Your task to perform on an android device: Show me popular games on the Play Store Image 0: 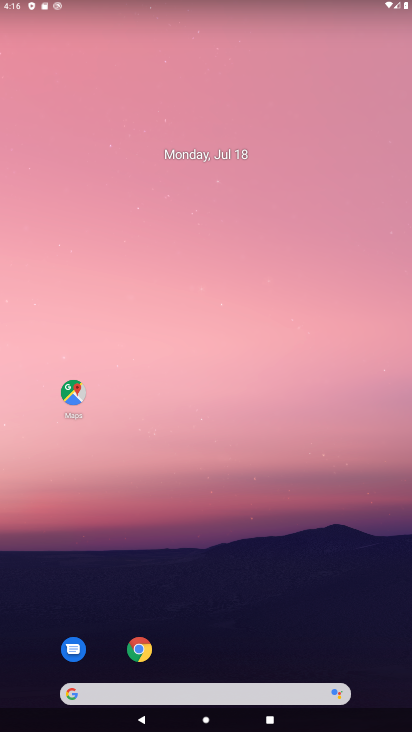
Step 0: drag from (220, 627) to (220, 62)
Your task to perform on an android device: Show me popular games on the Play Store Image 1: 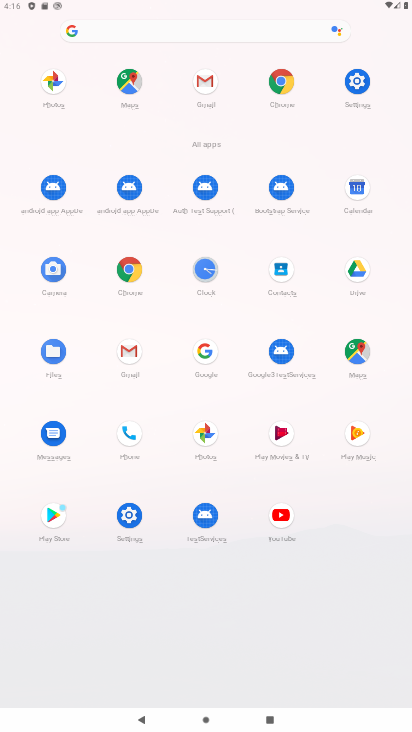
Step 1: click (54, 515)
Your task to perform on an android device: Show me popular games on the Play Store Image 2: 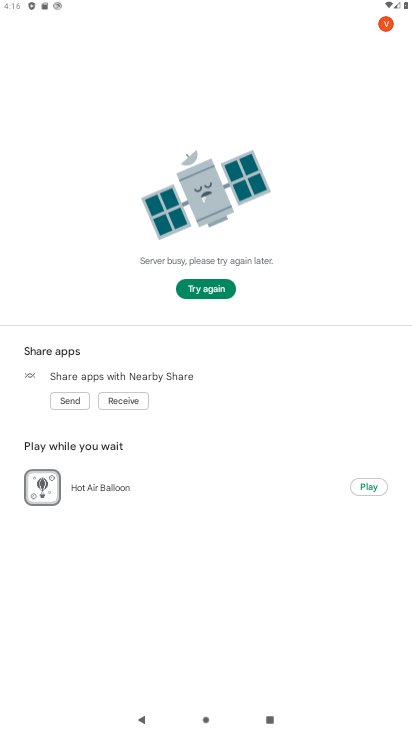
Step 2: click (203, 279)
Your task to perform on an android device: Show me popular games on the Play Store Image 3: 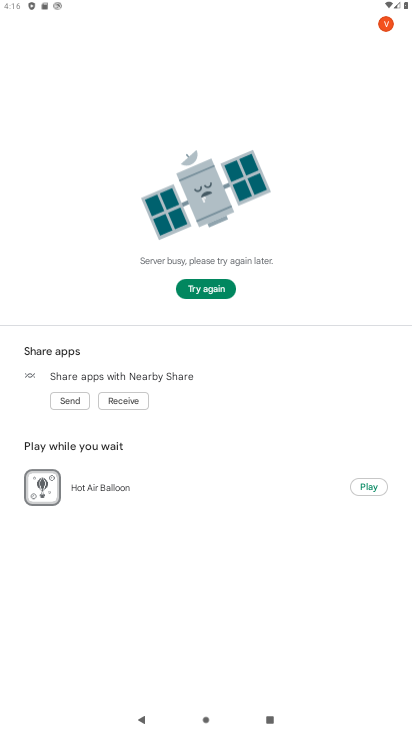
Step 3: click (206, 300)
Your task to perform on an android device: Show me popular games on the Play Store Image 4: 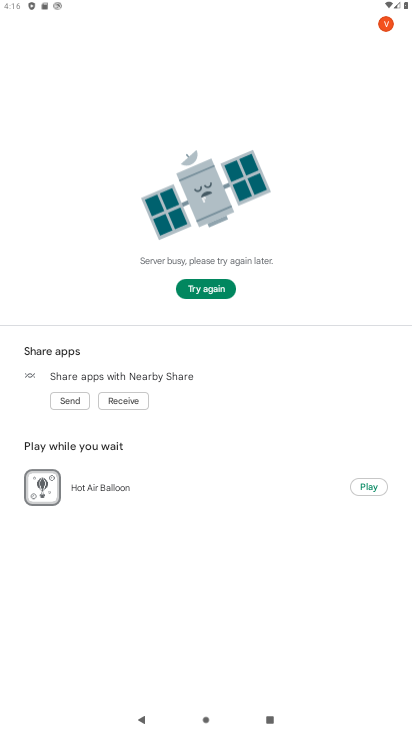
Step 4: click (215, 277)
Your task to perform on an android device: Show me popular games on the Play Store Image 5: 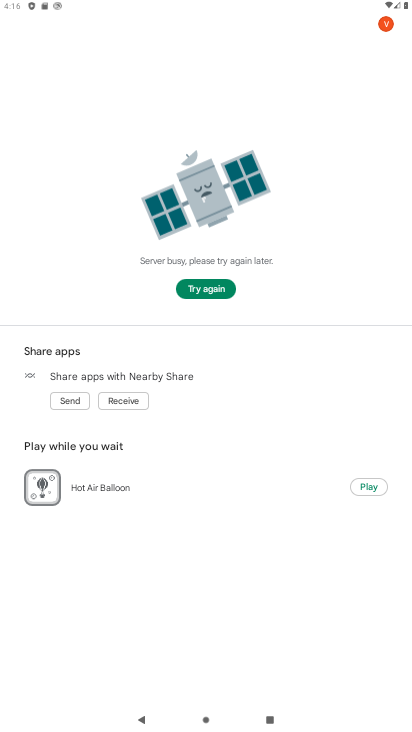
Step 5: click (213, 278)
Your task to perform on an android device: Show me popular games on the Play Store Image 6: 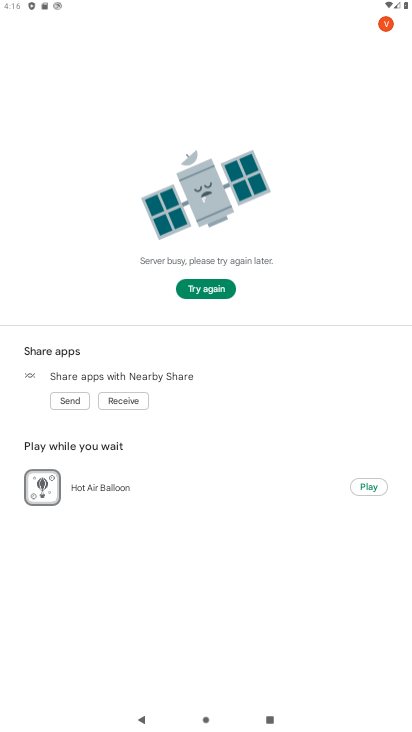
Step 6: click (210, 293)
Your task to perform on an android device: Show me popular games on the Play Store Image 7: 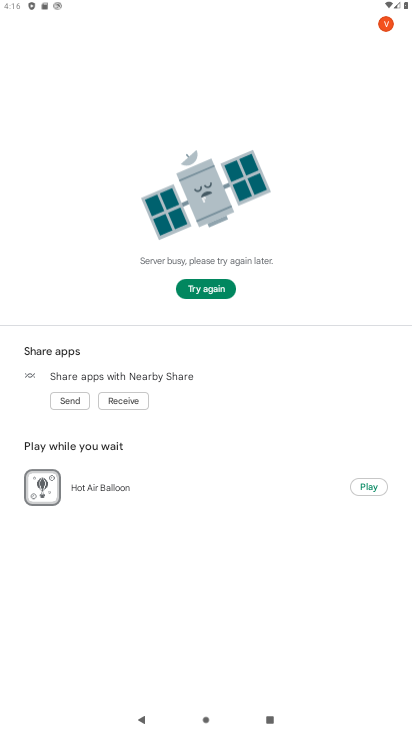
Step 7: click (208, 296)
Your task to perform on an android device: Show me popular games on the Play Store Image 8: 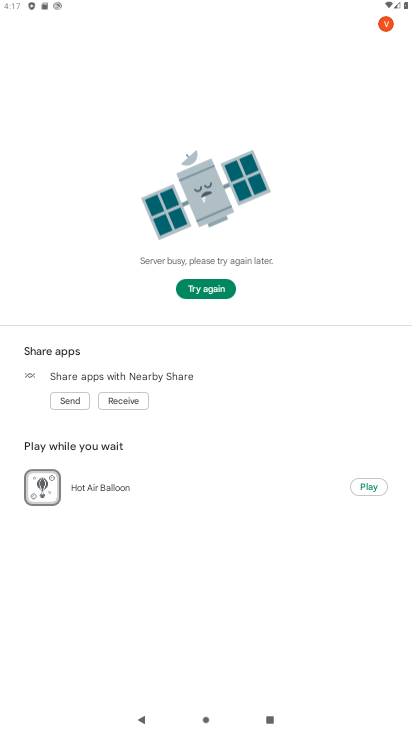
Step 8: click (208, 296)
Your task to perform on an android device: Show me popular games on the Play Store Image 9: 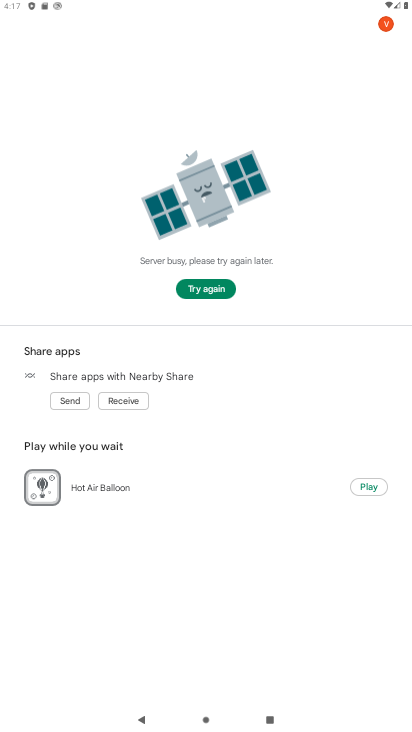
Step 9: task complete